Your task to perform on an android device: Go to Google maps Image 0: 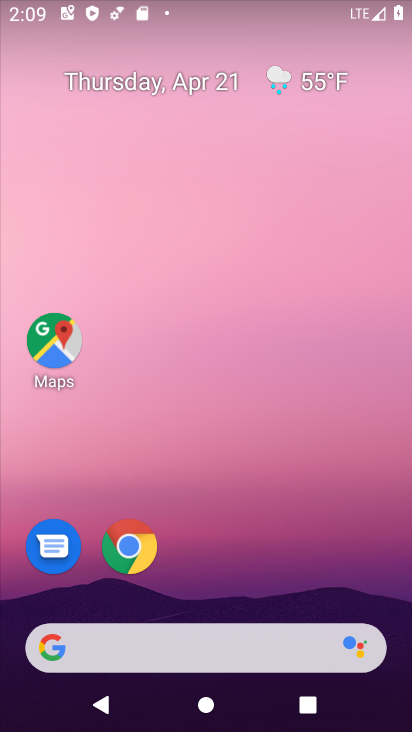
Step 0: click (39, 344)
Your task to perform on an android device: Go to Google maps Image 1: 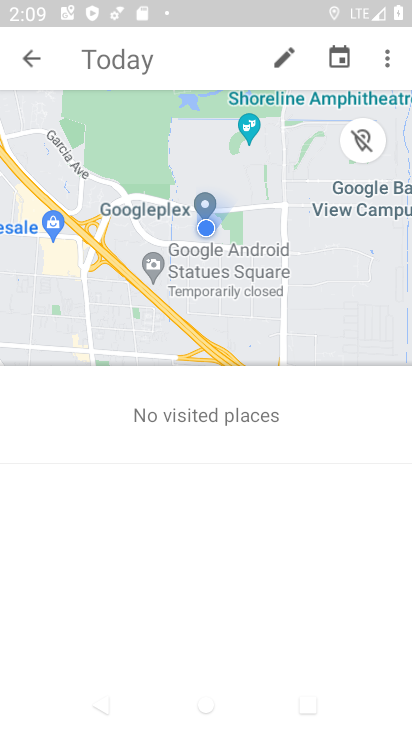
Step 1: task complete